Your task to perform on an android device: see tabs open on other devices in the chrome app Image 0: 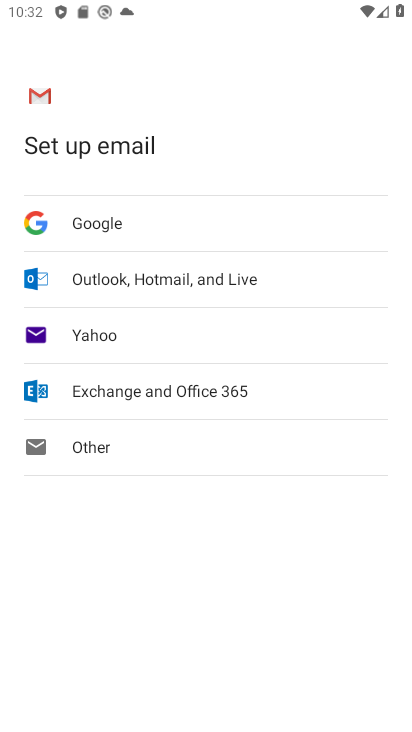
Step 0: press home button
Your task to perform on an android device: see tabs open on other devices in the chrome app Image 1: 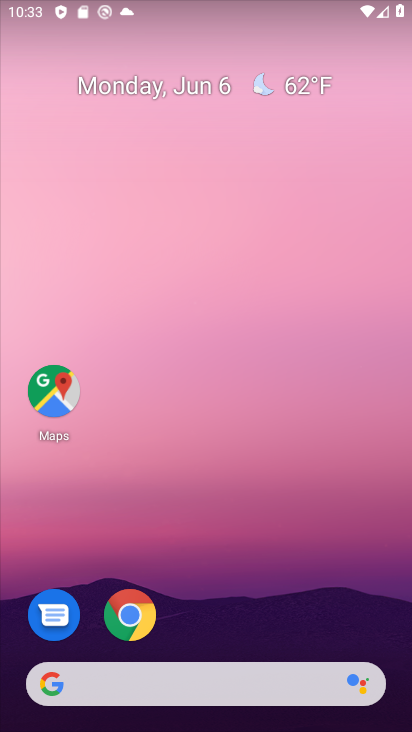
Step 1: click (141, 619)
Your task to perform on an android device: see tabs open on other devices in the chrome app Image 2: 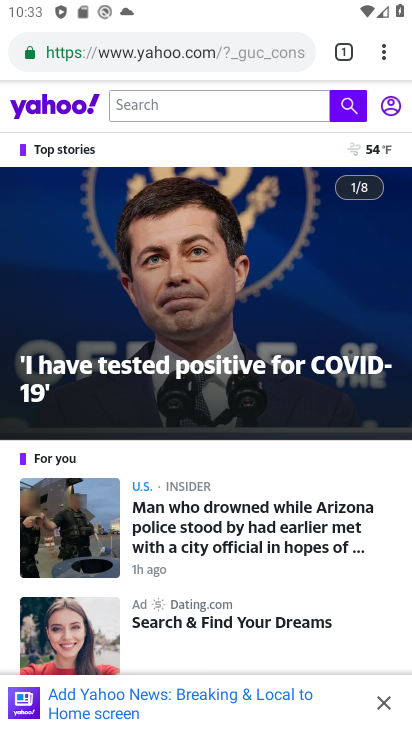
Step 2: task complete